Your task to perform on an android device: change the clock display to digital Image 0: 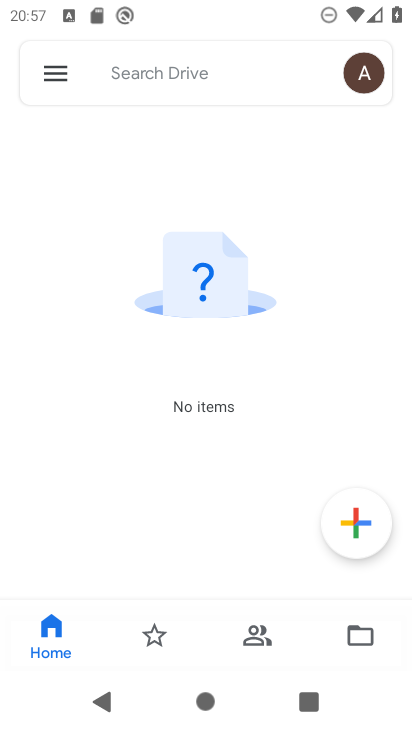
Step 0: press home button
Your task to perform on an android device: change the clock display to digital Image 1: 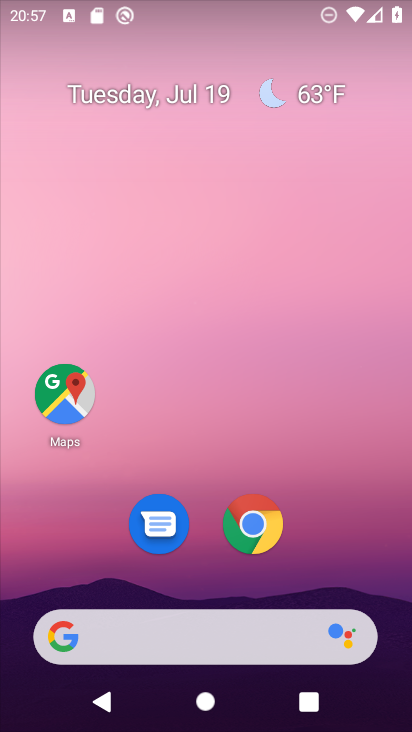
Step 1: drag from (220, 435) to (281, 6)
Your task to perform on an android device: change the clock display to digital Image 2: 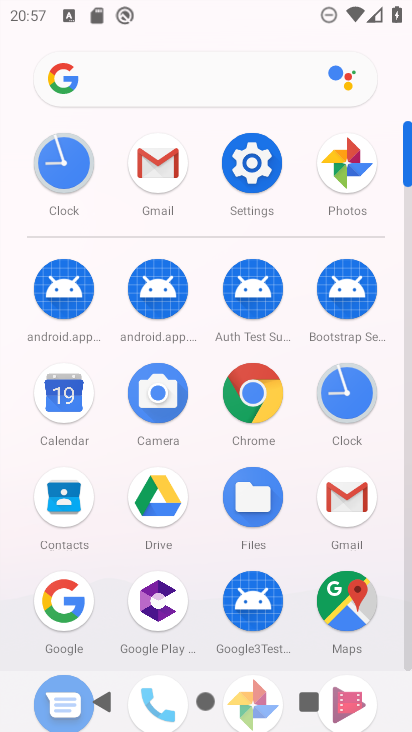
Step 2: click (79, 160)
Your task to perform on an android device: change the clock display to digital Image 3: 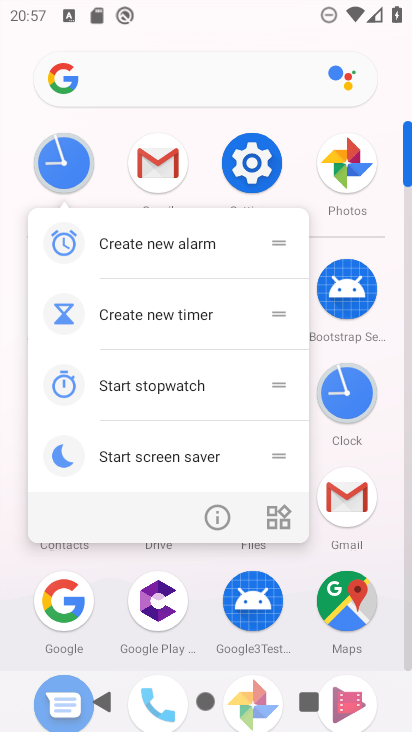
Step 3: click (79, 160)
Your task to perform on an android device: change the clock display to digital Image 4: 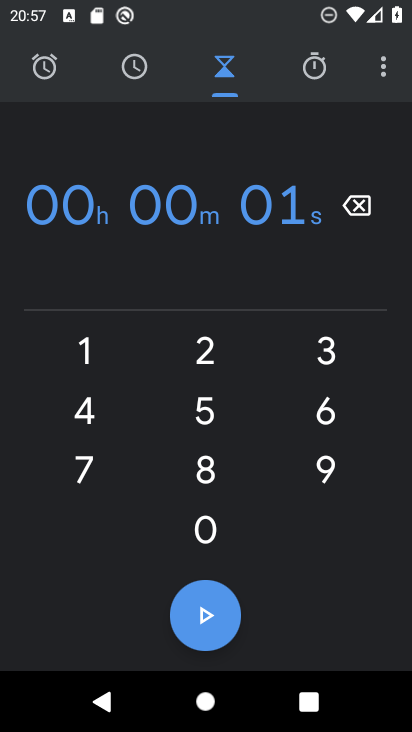
Step 4: click (138, 67)
Your task to perform on an android device: change the clock display to digital Image 5: 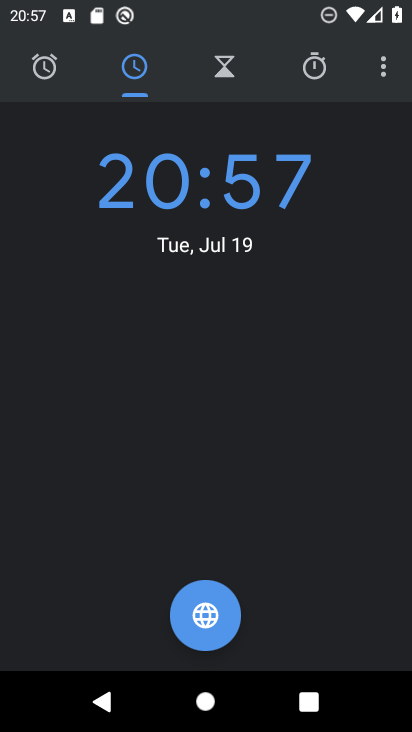
Step 5: task complete